Your task to perform on an android device: Open Wikipedia Image 0: 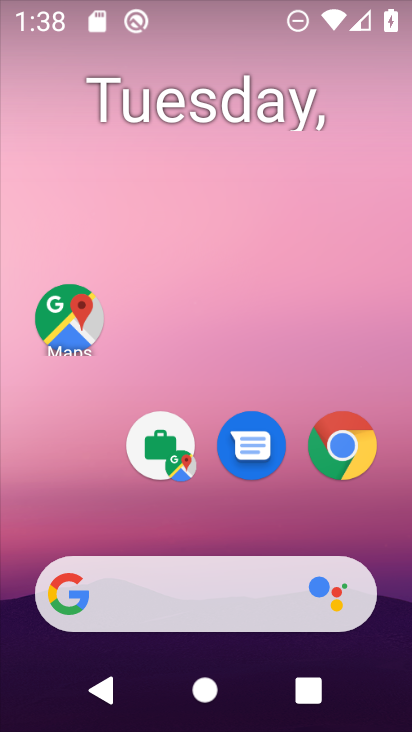
Step 0: click (353, 464)
Your task to perform on an android device: Open Wikipedia Image 1: 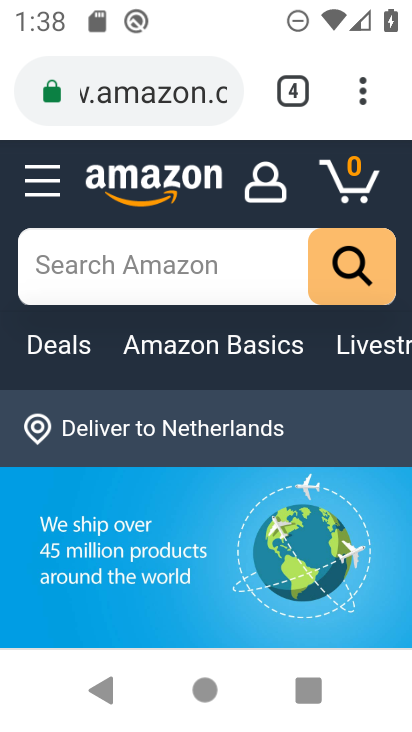
Step 1: click (306, 105)
Your task to perform on an android device: Open Wikipedia Image 2: 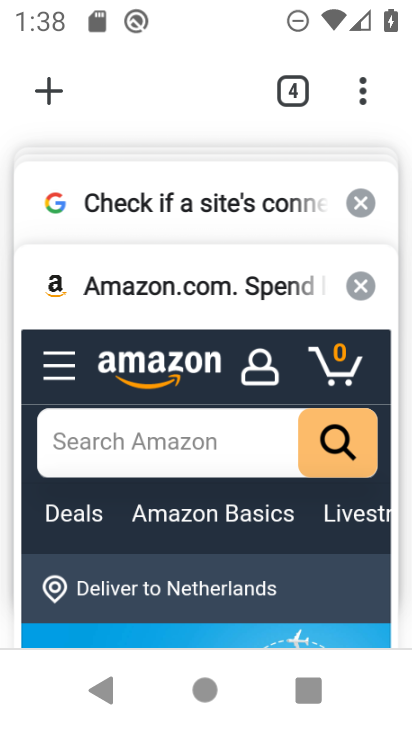
Step 2: click (32, 97)
Your task to perform on an android device: Open Wikipedia Image 3: 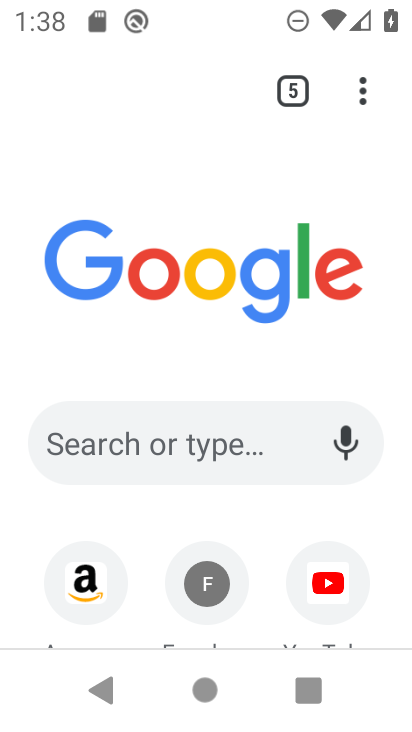
Step 3: click (191, 463)
Your task to perform on an android device: Open Wikipedia Image 4: 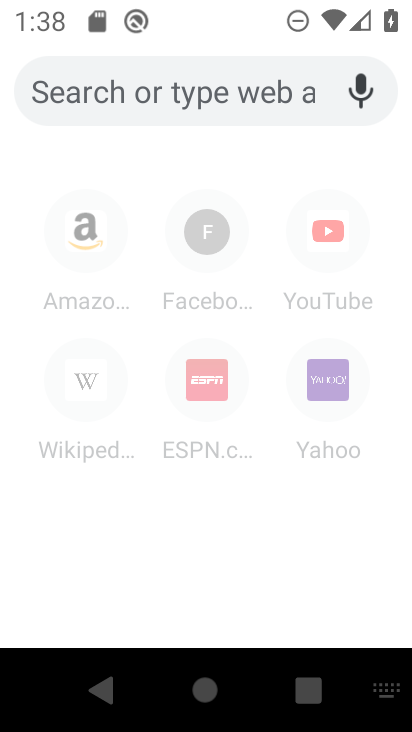
Step 4: type "wikipedia"
Your task to perform on an android device: Open Wikipedia Image 5: 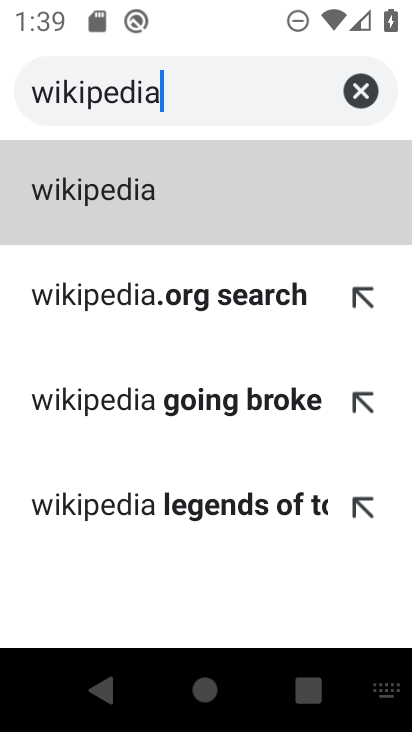
Step 5: click (177, 201)
Your task to perform on an android device: Open Wikipedia Image 6: 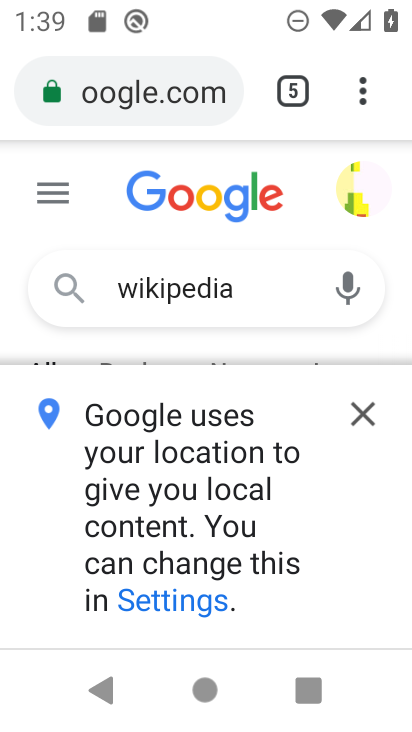
Step 6: click (366, 402)
Your task to perform on an android device: Open Wikipedia Image 7: 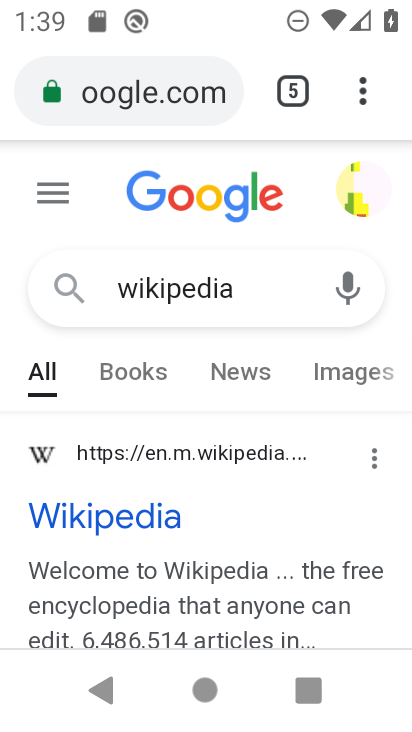
Step 7: click (111, 519)
Your task to perform on an android device: Open Wikipedia Image 8: 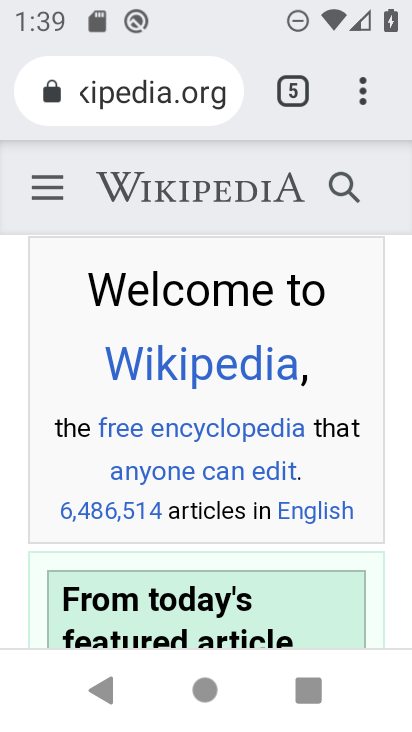
Step 8: task complete